Your task to perform on an android device: check storage Image 0: 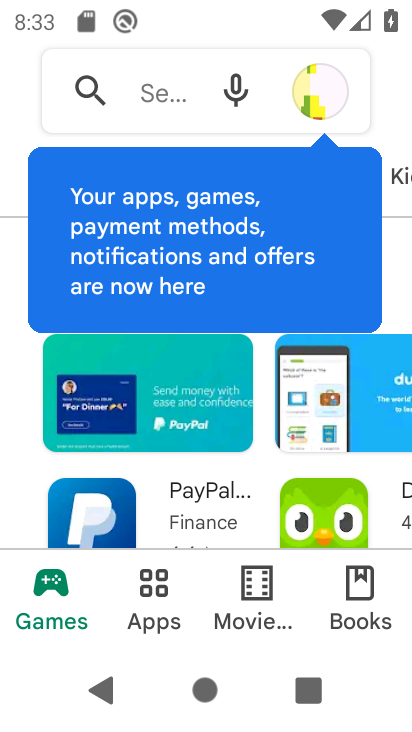
Step 0: press home button
Your task to perform on an android device: check storage Image 1: 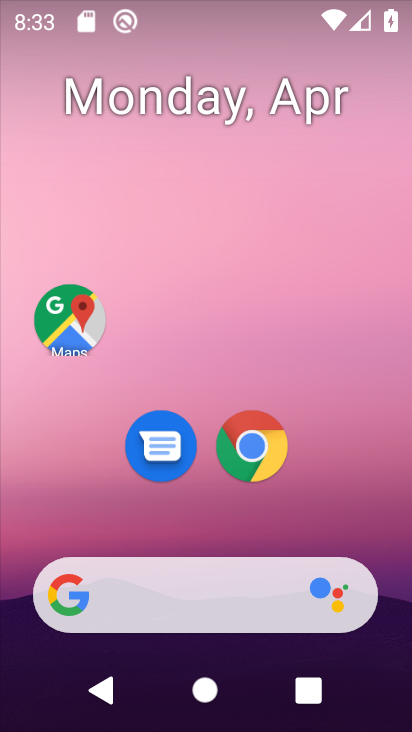
Step 1: drag from (339, 424) to (341, 116)
Your task to perform on an android device: check storage Image 2: 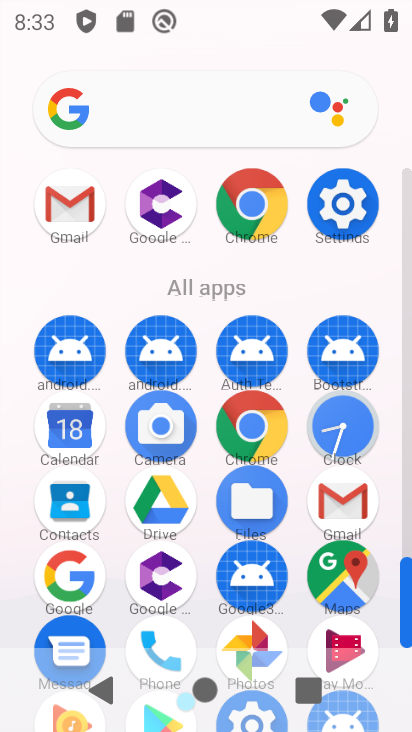
Step 2: click (344, 214)
Your task to perform on an android device: check storage Image 3: 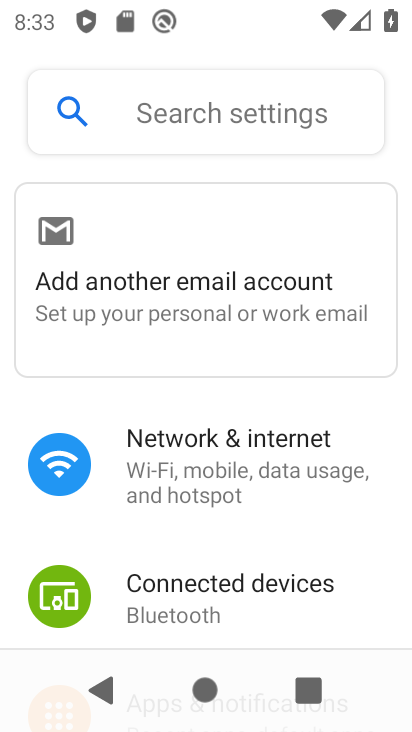
Step 3: drag from (378, 569) to (382, 322)
Your task to perform on an android device: check storage Image 4: 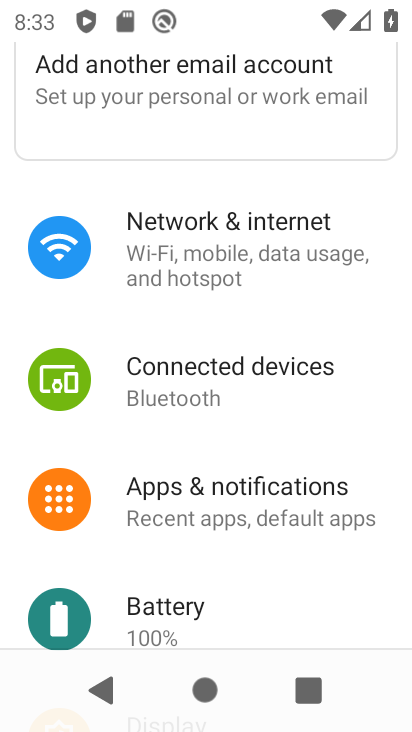
Step 4: drag from (394, 537) to (393, 237)
Your task to perform on an android device: check storage Image 5: 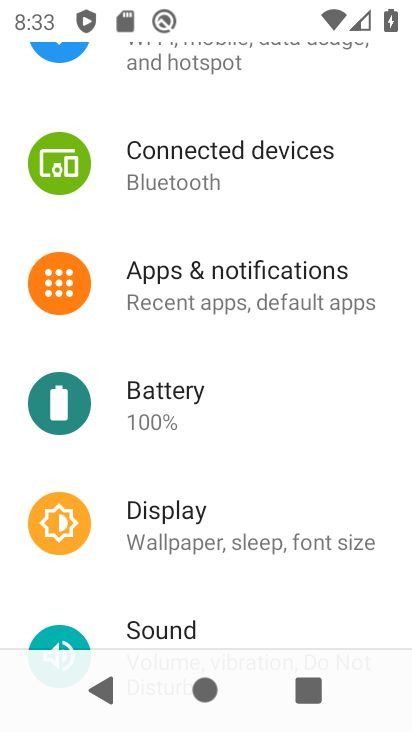
Step 5: drag from (385, 476) to (395, 243)
Your task to perform on an android device: check storage Image 6: 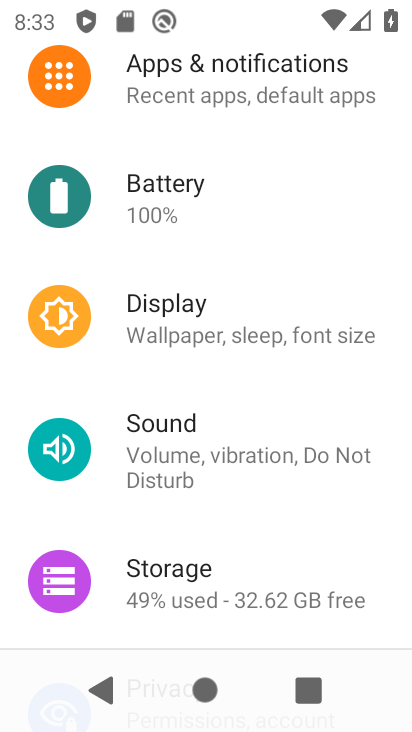
Step 6: drag from (380, 502) to (387, 298)
Your task to perform on an android device: check storage Image 7: 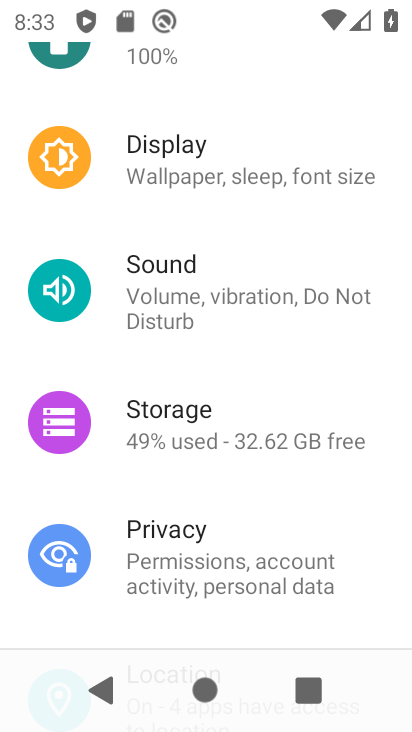
Step 7: drag from (381, 523) to (391, 208)
Your task to perform on an android device: check storage Image 8: 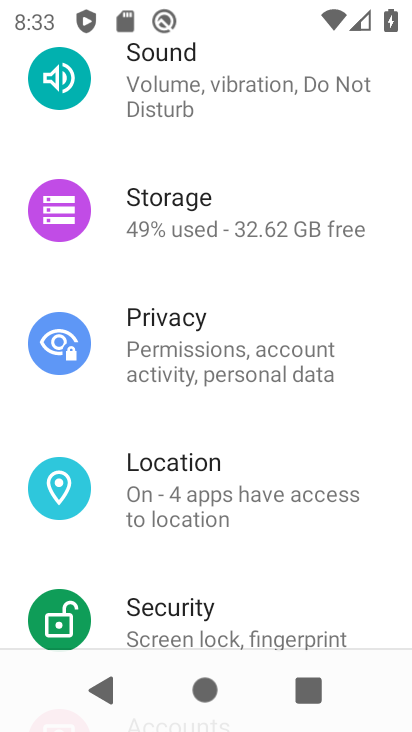
Step 8: click (314, 225)
Your task to perform on an android device: check storage Image 9: 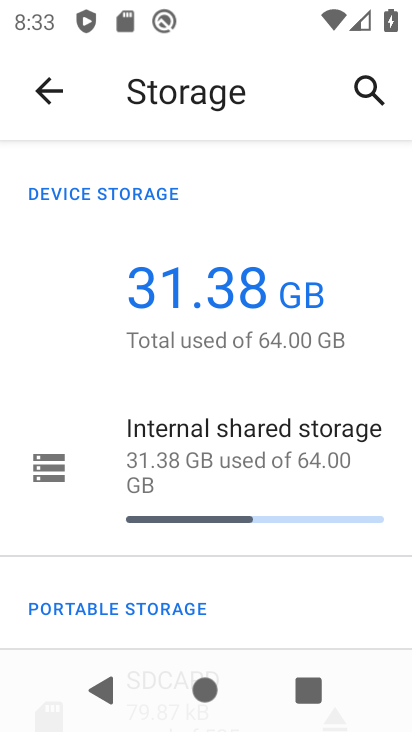
Step 9: task complete